Your task to perform on an android device: turn vacation reply on in the gmail app Image 0: 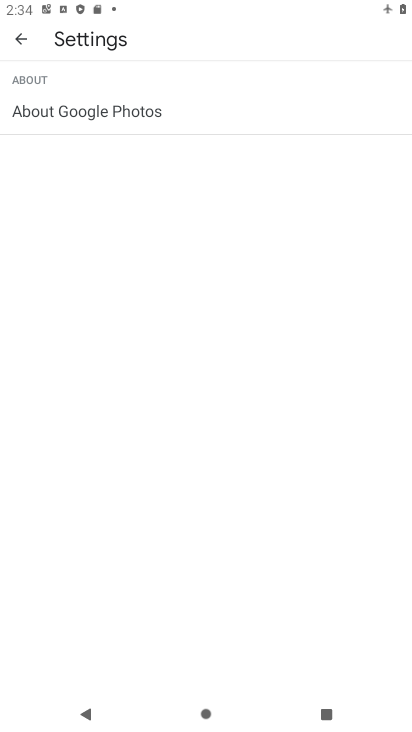
Step 0: press home button
Your task to perform on an android device: turn vacation reply on in the gmail app Image 1: 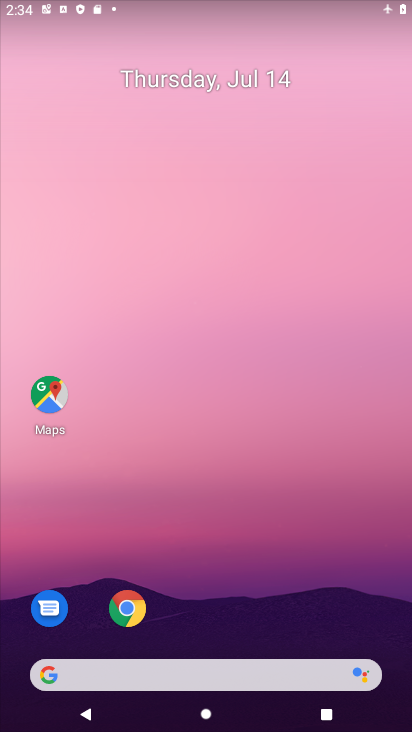
Step 1: drag from (384, 635) to (337, 180)
Your task to perform on an android device: turn vacation reply on in the gmail app Image 2: 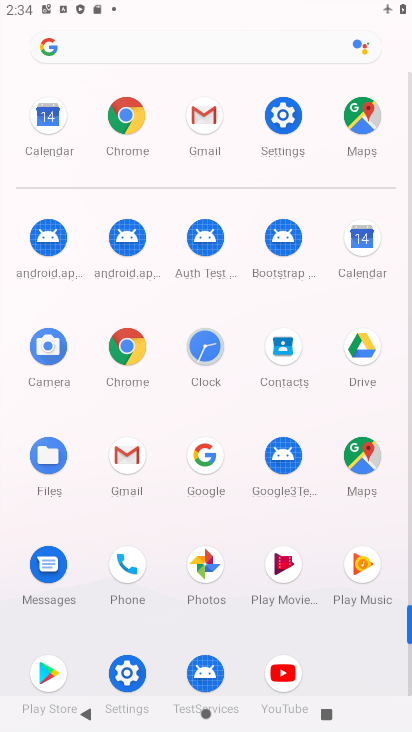
Step 2: click (125, 454)
Your task to perform on an android device: turn vacation reply on in the gmail app Image 3: 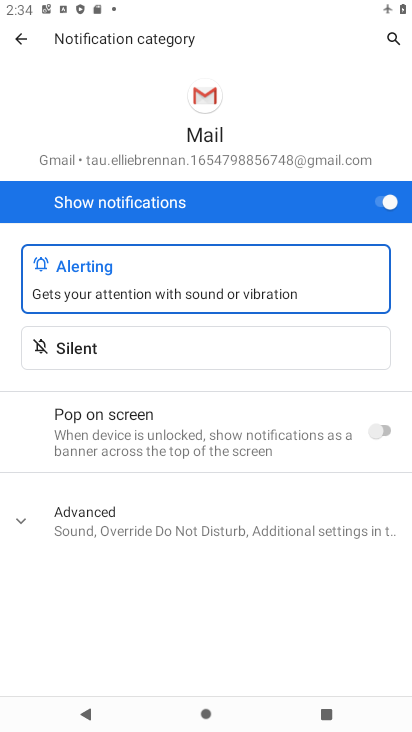
Step 3: press back button
Your task to perform on an android device: turn vacation reply on in the gmail app Image 4: 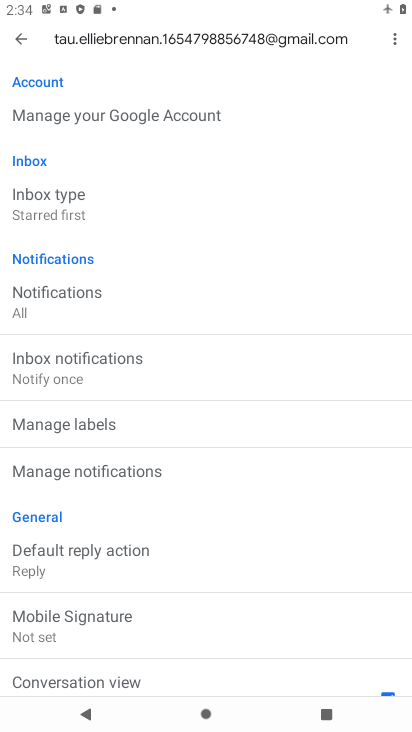
Step 4: drag from (267, 591) to (254, 178)
Your task to perform on an android device: turn vacation reply on in the gmail app Image 5: 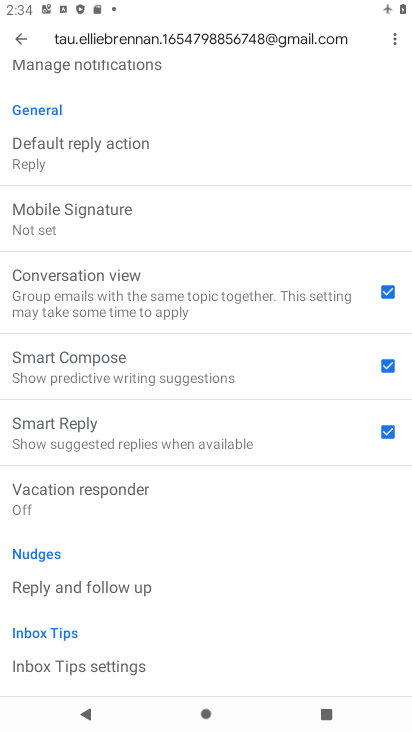
Step 5: click (39, 490)
Your task to perform on an android device: turn vacation reply on in the gmail app Image 6: 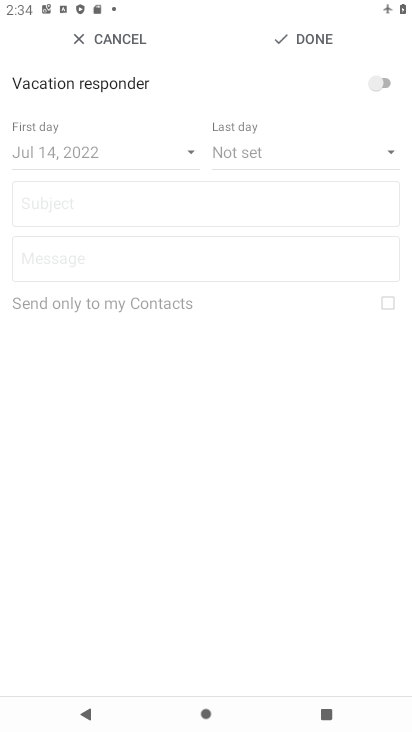
Step 6: click (390, 81)
Your task to perform on an android device: turn vacation reply on in the gmail app Image 7: 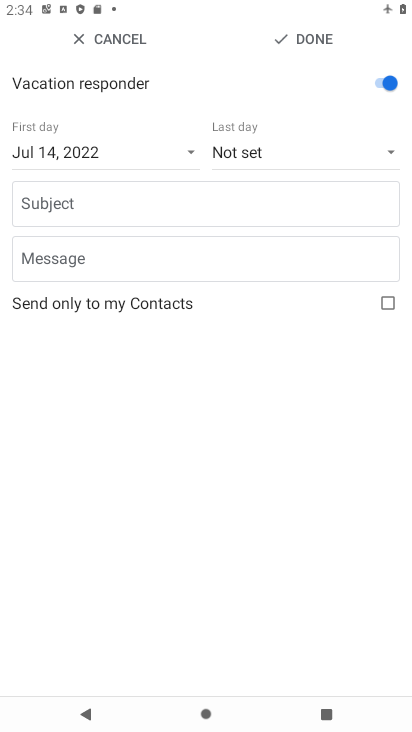
Step 7: click (301, 32)
Your task to perform on an android device: turn vacation reply on in the gmail app Image 8: 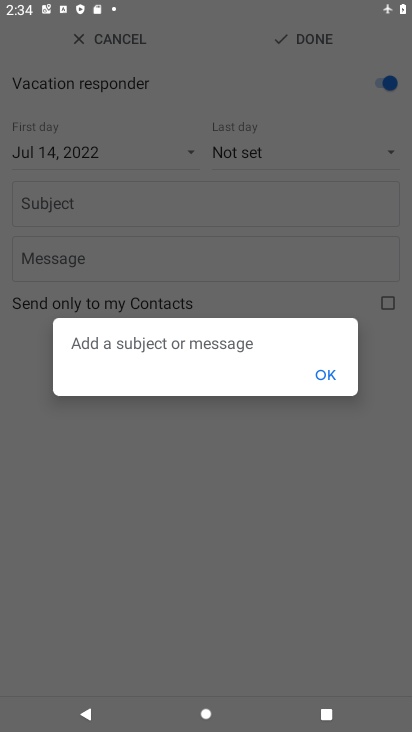
Step 8: click (323, 373)
Your task to perform on an android device: turn vacation reply on in the gmail app Image 9: 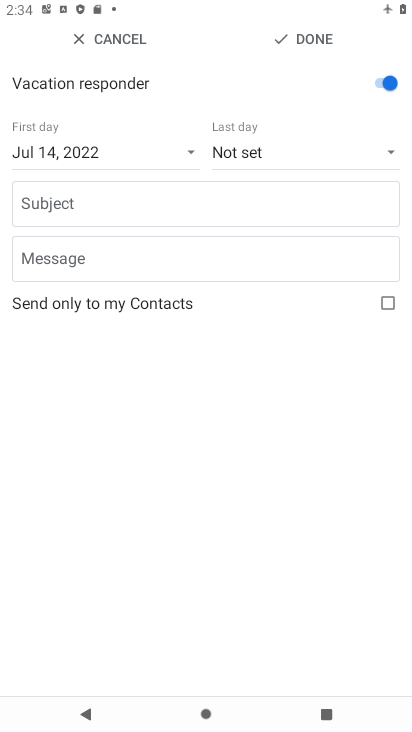
Step 9: task complete